Your task to perform on an android device: Go to internet settings Image 0: 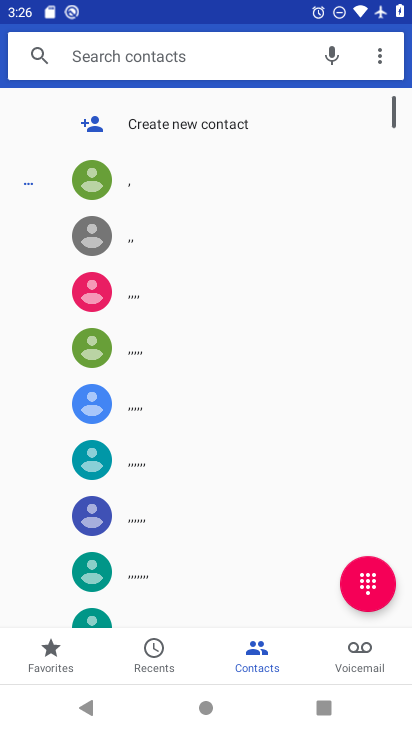
Step 0: press home button
Your task to perform on an android device: Go to internet settings Image 1: 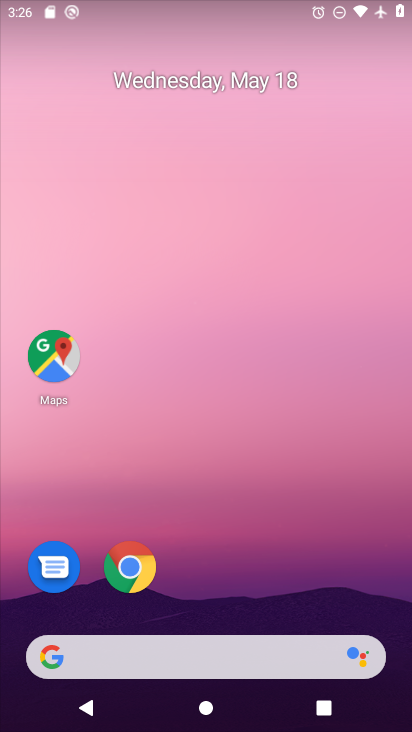
Step 1: drag from (217, 568) to (240, 204)
Your task to perform on an android device: Go to internet settings Image 2: 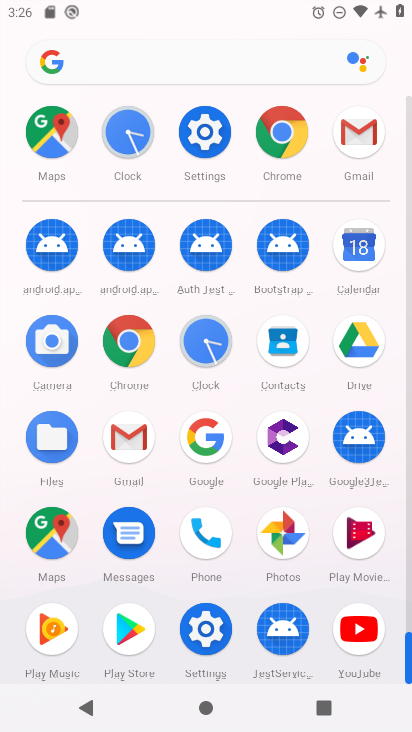
Step 2: click (210, 125)
Your task to perform on an android device: Go to internet settings Image 3: 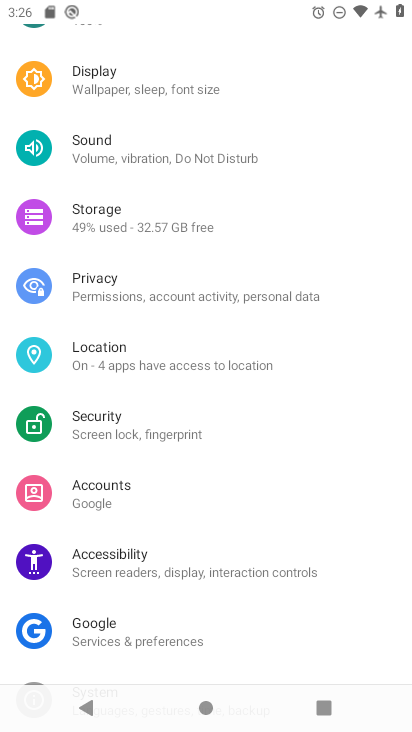
Step 3: drag from (146, 173) to (149, 463)
Your task to perform on an android device: Go to internet settings Image 4: 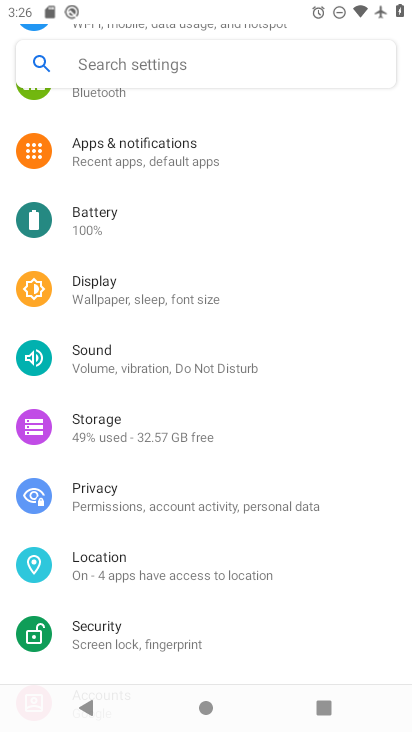
Step 4: drag from (158, 144) to (124, 501)
Your task to perform on an android device: Go to internet settings Image 5: 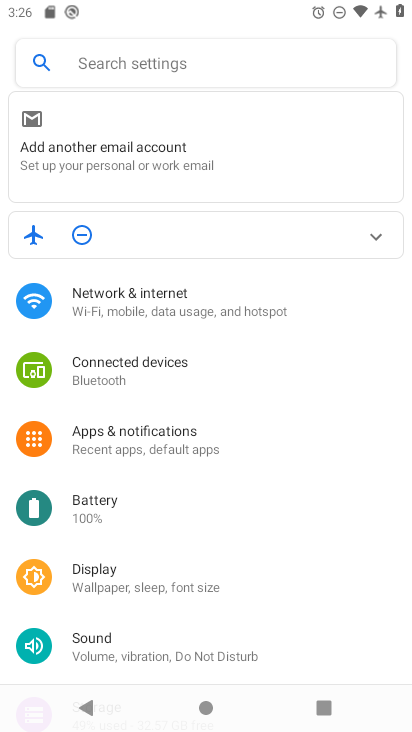
Step 5: click (145, 297)
Your task to perform on an android device: Go to internet settings Image 6: 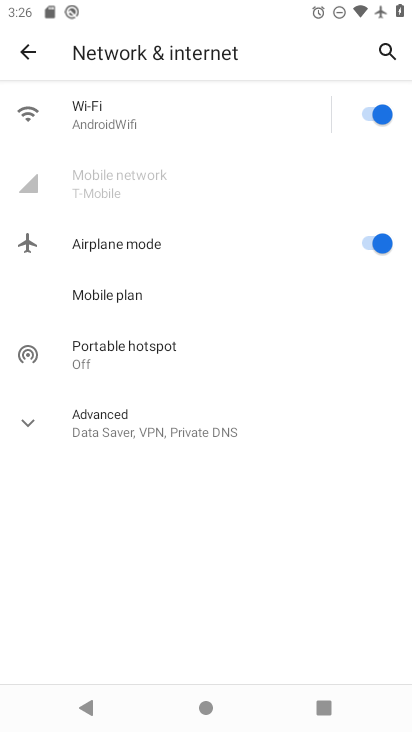
Step 6: task complete